Your task to perform on an android device: clear history in the chrome app Image 0: 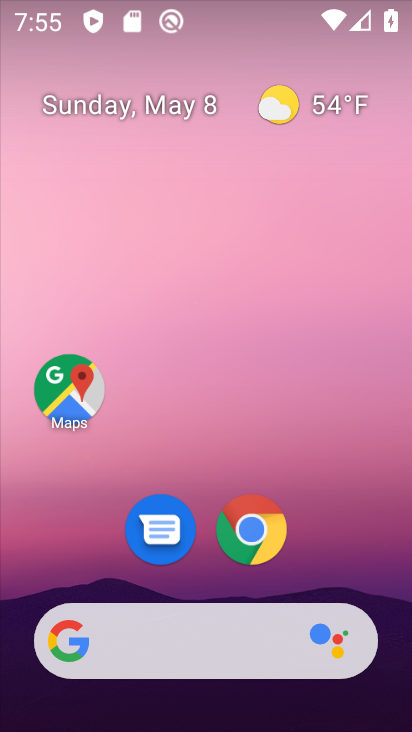
Step 0: drag from (401, 576) to (374, 72)
Your task to perform on an android device: clear history in the chrome app Image 1: 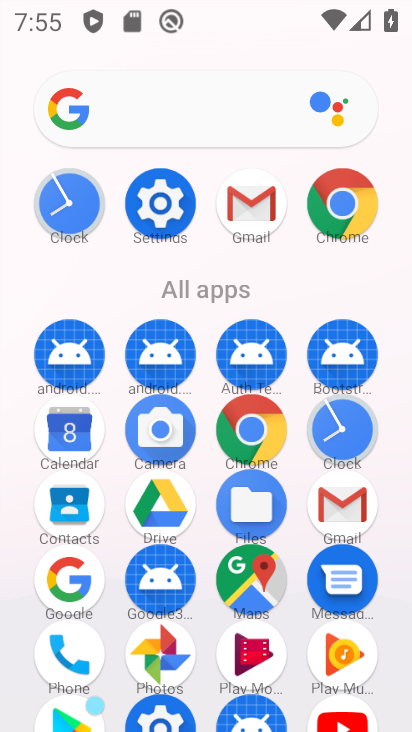
Step 1: click (243, 447)
Your task to perform on an android device: clear history in the chrome app Image 2: 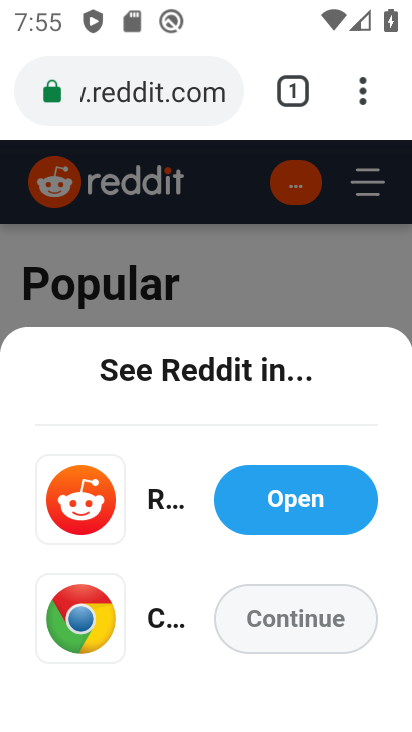
Step 2: click (370, 96)
Your task to perform on an android device: clear history in the chrome app Image 3: 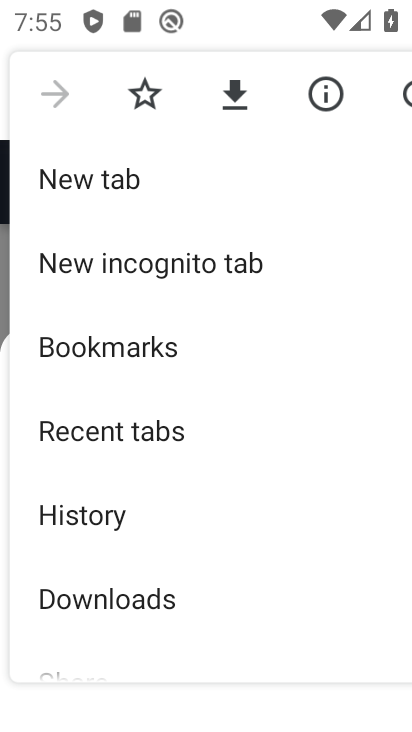
Step 3: click (114, 527)
Your task to perform on an android device: clear history in the chrome app Image 4: 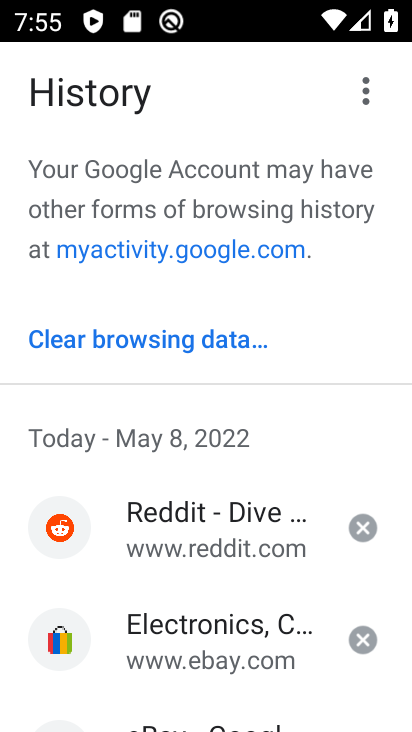
Step 4: click (166, 343)
Your task to perform on an android device: clear history in the chrome app Image 5: 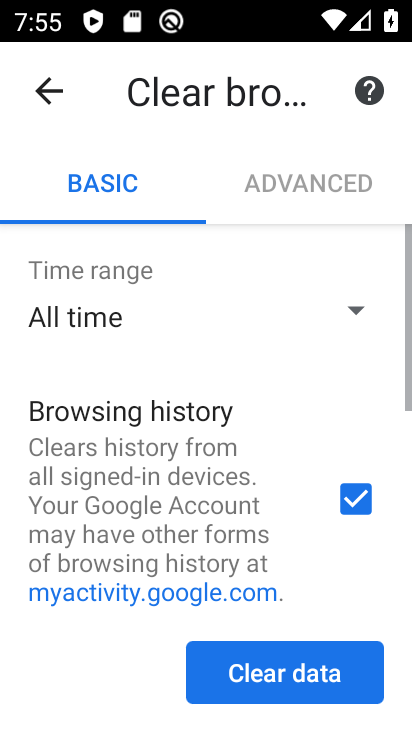
Step 5: click (284, 687)
Your task to perform on an android device: clear history in the chrome app Image 6: 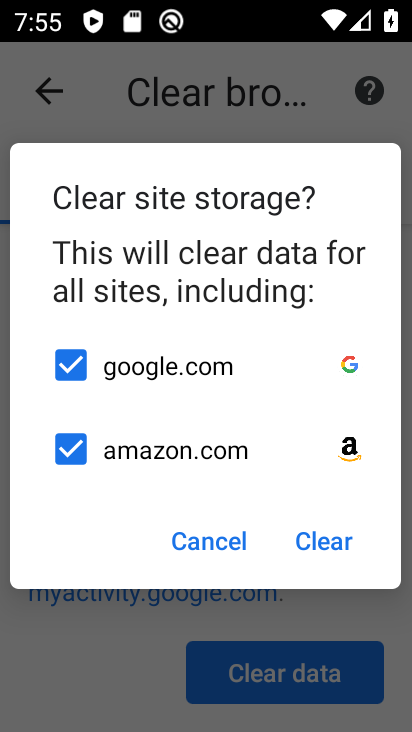
Step 6: click (322, 545)
Your task to perform on an android device: clear history in the chrome app Image 7: 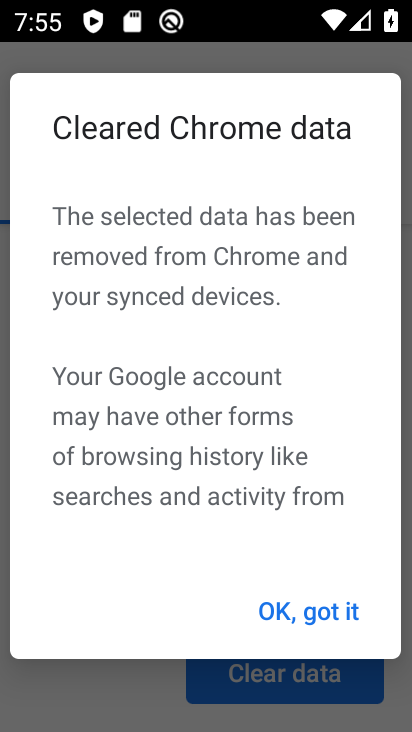
Step 7: click (285, 605)
Your task to perform on an android device: clear history in the chrome app Image 8: 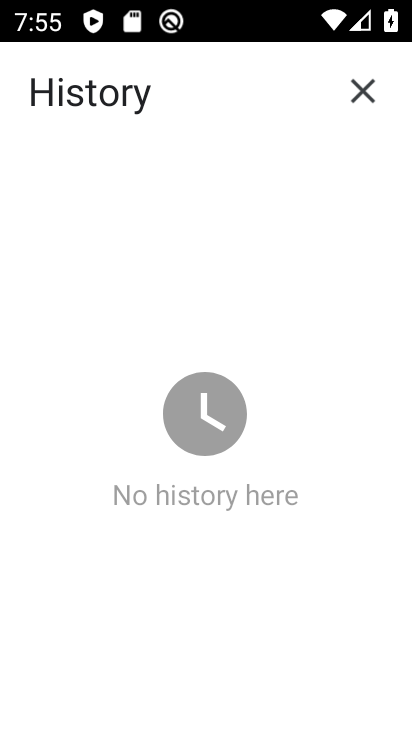
Step 8: task complete